Your task to perform on an android device: Open wifi settings Image 0: 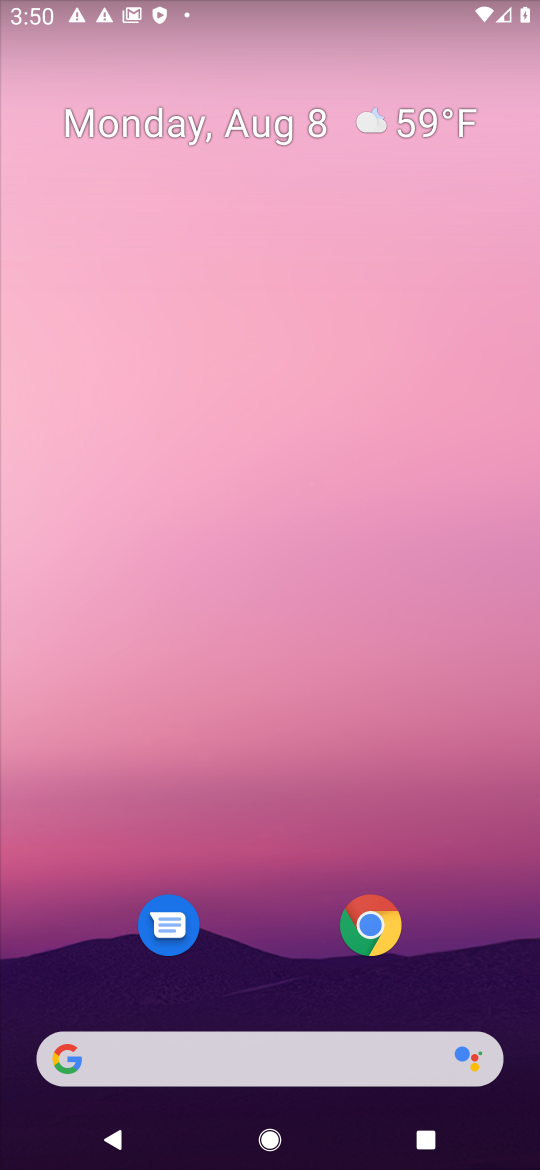
Step 0: drag from (290, 1012) to (289, 189)
Your task to perform on an android device: Open wifi settings Image 1: 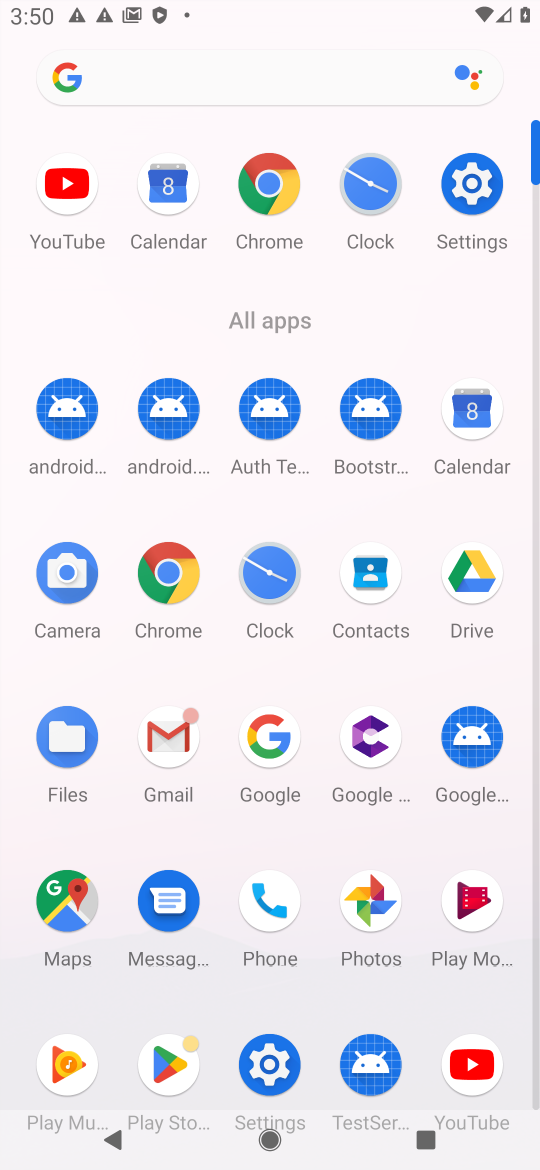
Step 1: click (479, 176)
Your task to perform on an android device: Open wifi settings Image 2: 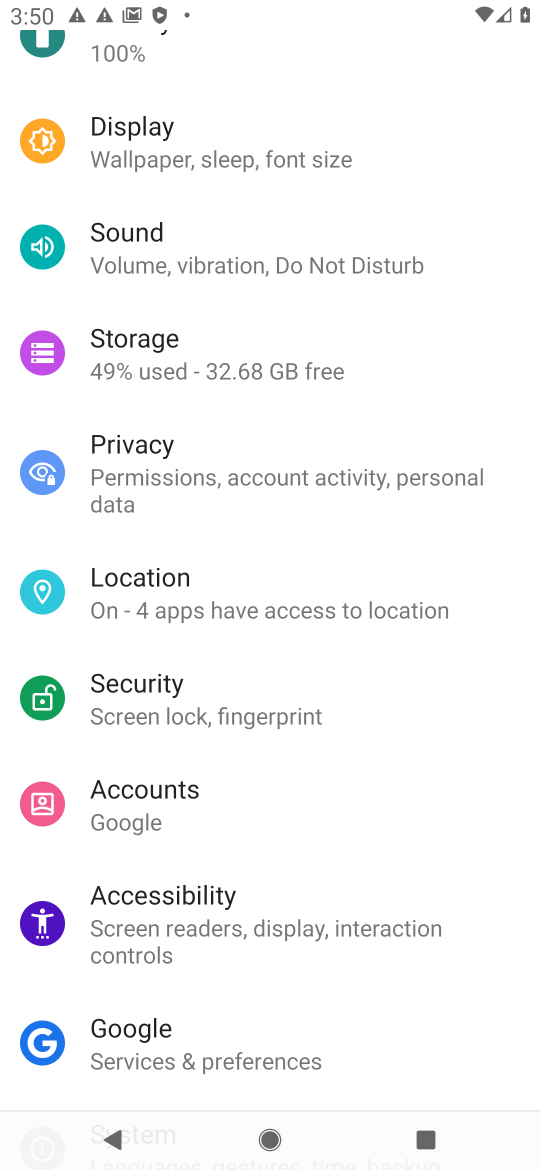
Step 2: drag from (283, 183) to (238, 913)
Your task to perform on an android device: Open wifi settings Image 3: 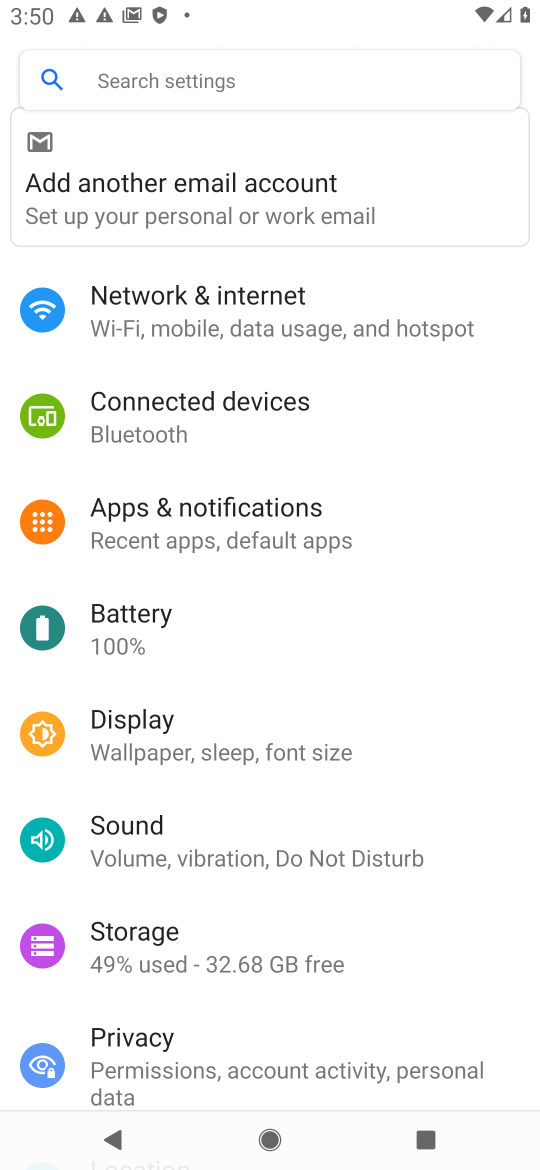
Step 3: click (156, 292)
Your task to perform on an android device: Open wifi settings Image 4: 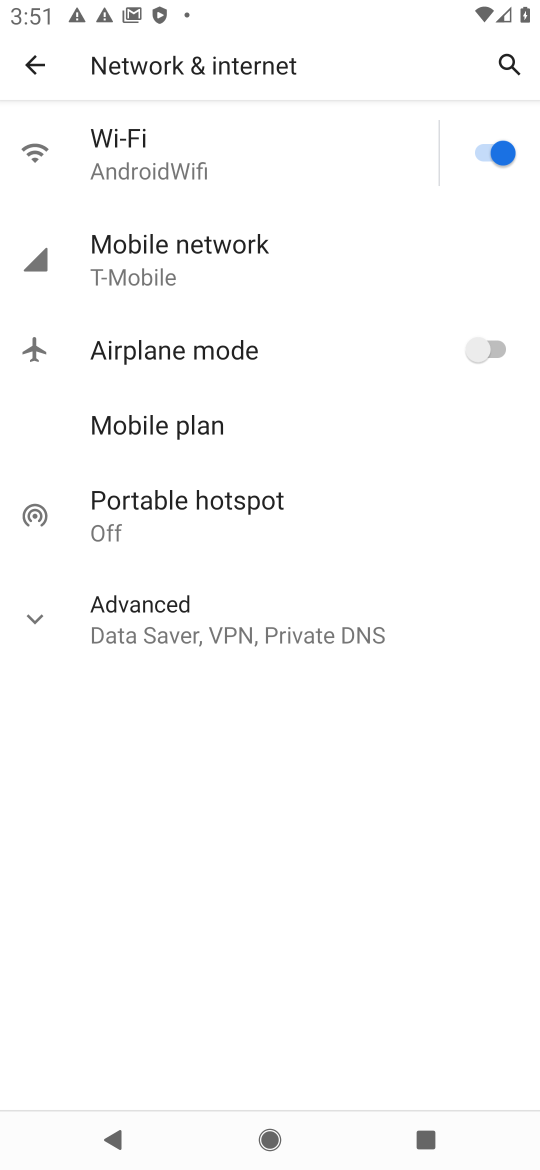
Step 4: click (145, 160)
Your task to perform on an android device: Open wifi settings Image 5: 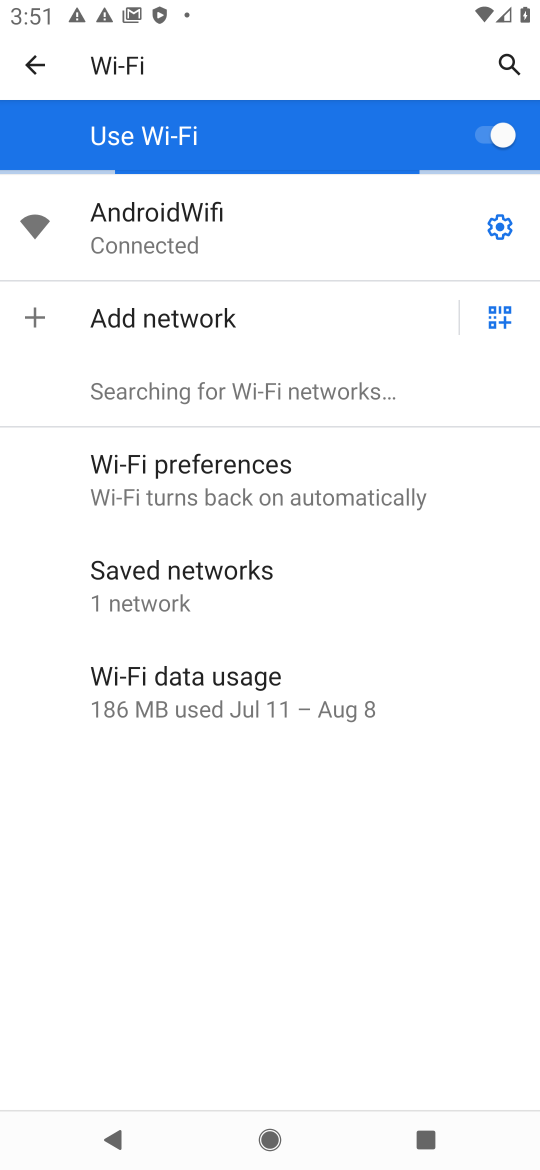
Step 5: task complete